Your task to perform on an android device: Open Reddit.com Image 0: 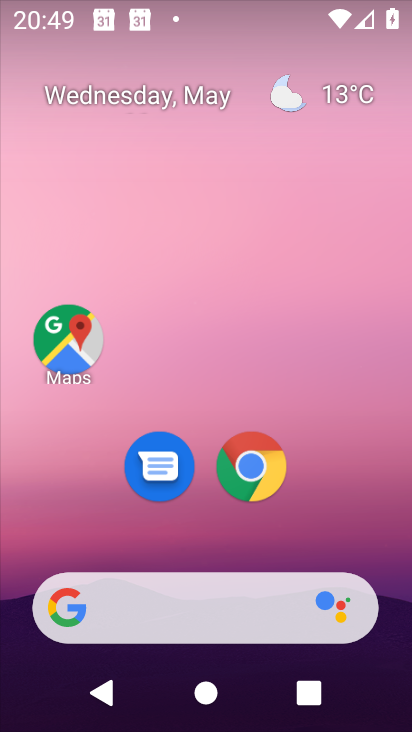
Step 0: click (255, 463)
Your task to perform on an android device: Open Reddit.com Image 1: 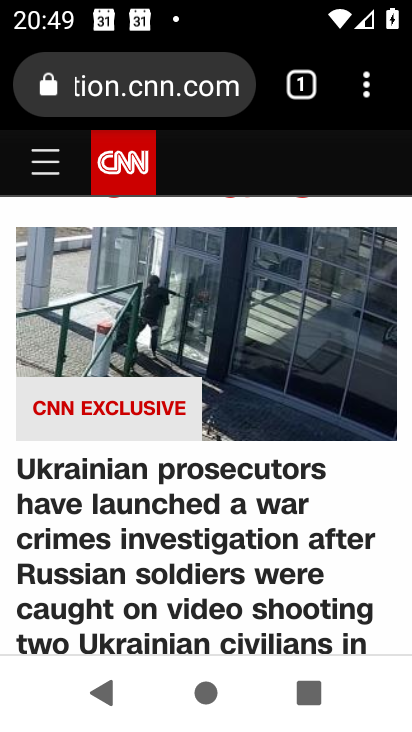
Step 1: click (301, 79)
Your task to perform on an android device: Open Reddit.com Image 2: 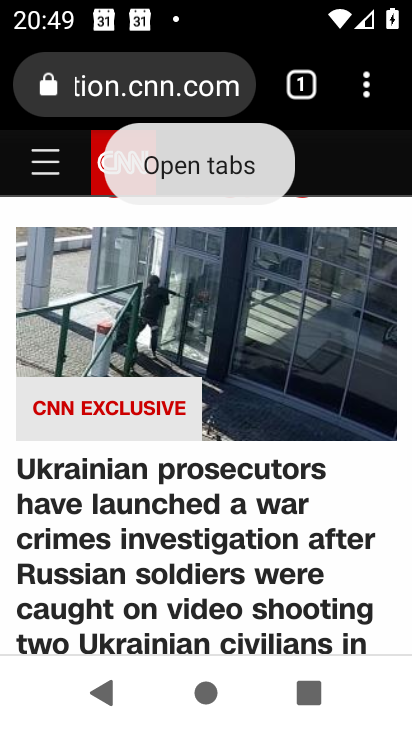
Step 2: click (300, 75)
Your task to perform on an android device: Open Reddit.com Image 3: 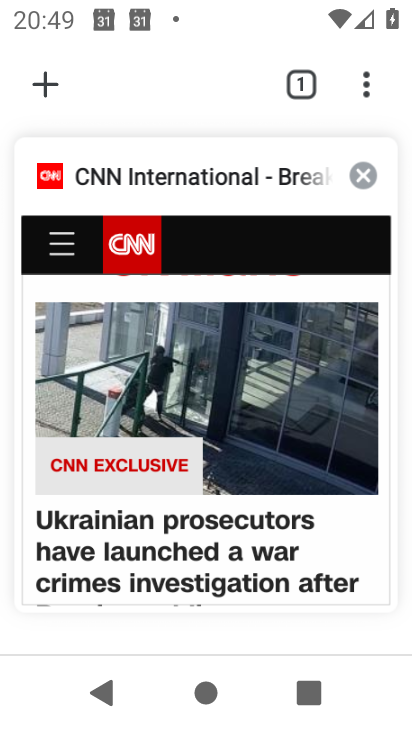
Step 3: click (360, 172)
Your task to perform on an android device: Open Reddit.com Image 4: 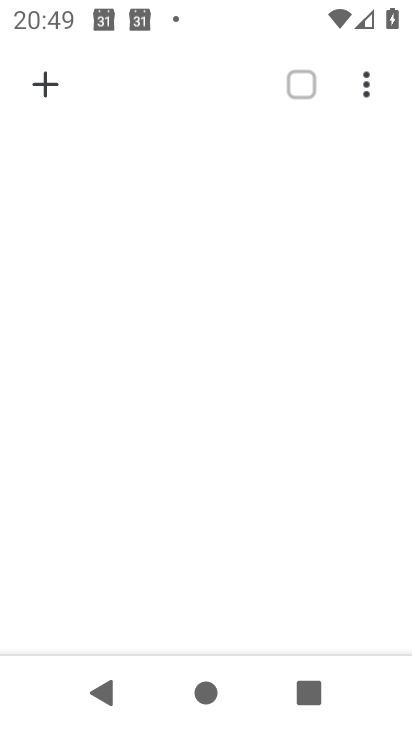
Step 4: click (55, 85)
Your task to perform on an android device: Open Reddit.com Image 5: 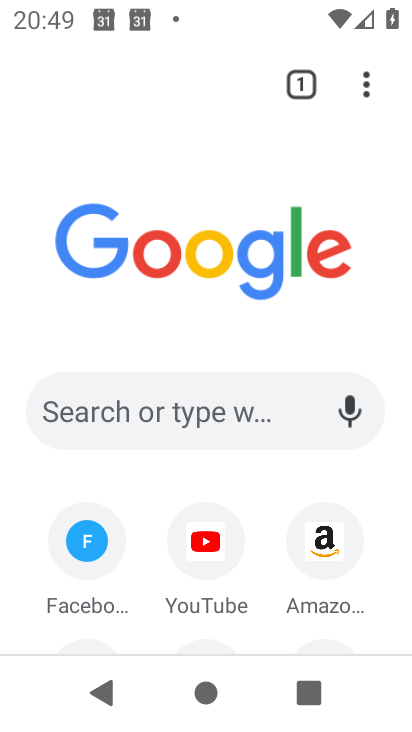
Step 5: drag from (261, 452) to (271, 84)
Your task to perform on an android device: Open Reddit.com Image 6: 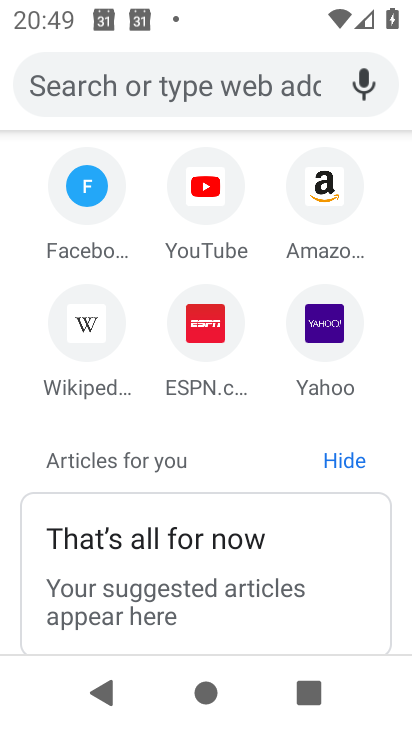
Step 6: click (179, 81)
Your task to perform on an android device: Open Reddit.com Image 7: 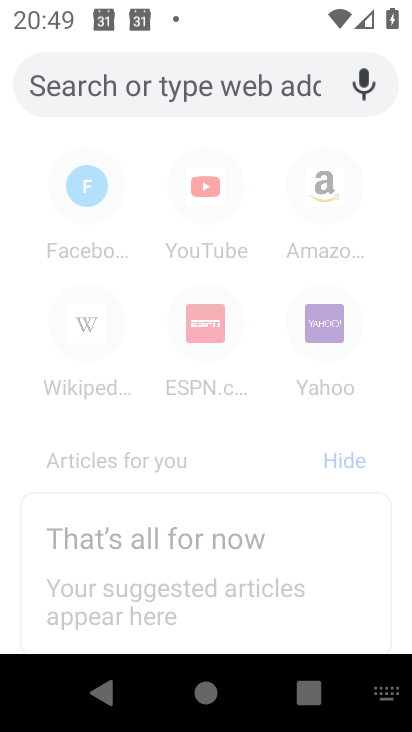
Step 7: type "reddit"
Your task to perform on an android device: Open Reddit.com Image 8: 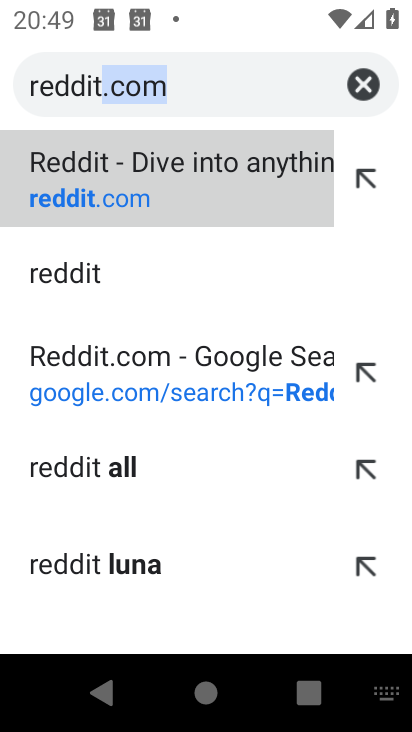
Step 8: click (111, 179)
Your task to perform on an android device: Open Reddit.com Image 9: 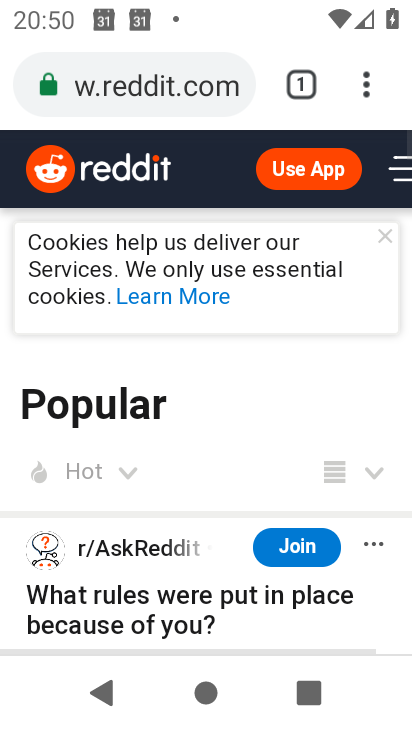
Step 9: task complete